Your task to perform on an android device: Turn off the flashlight Image 0: 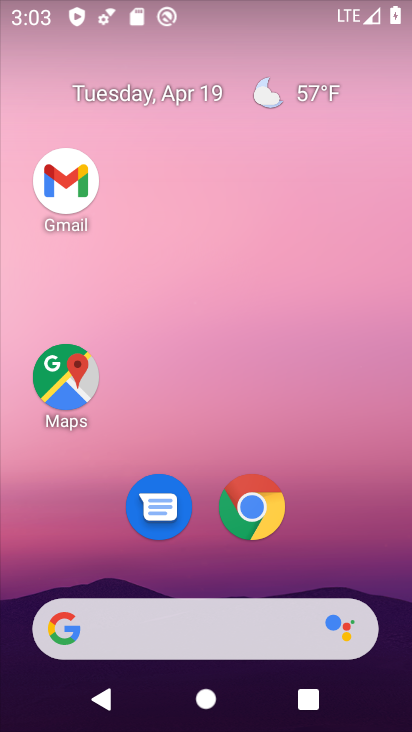
Step 0: drag from (267, 2) to (200, 486)
Your task to perform on an android device: Turn off the flashlight Image 1: 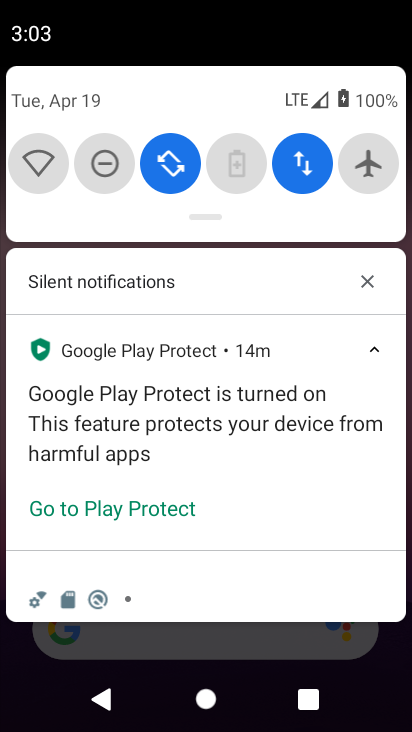
Step 1: task complete